Your task to perform on an android device: turn on improve location accuracy Image 0: 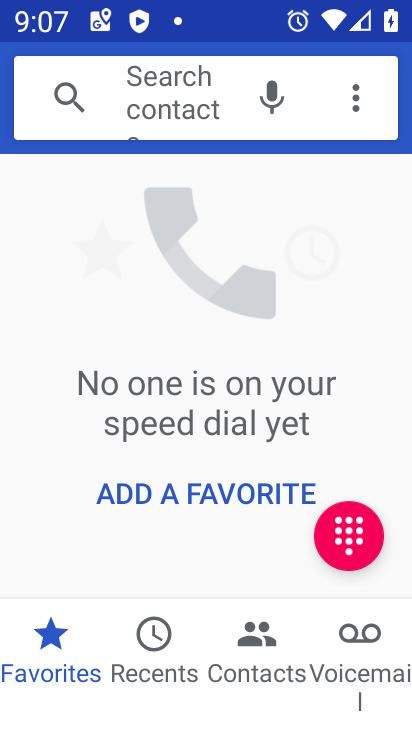
Step 0: press home button
Your task to perform on an android device: turn on improve location accuracy Image 1: 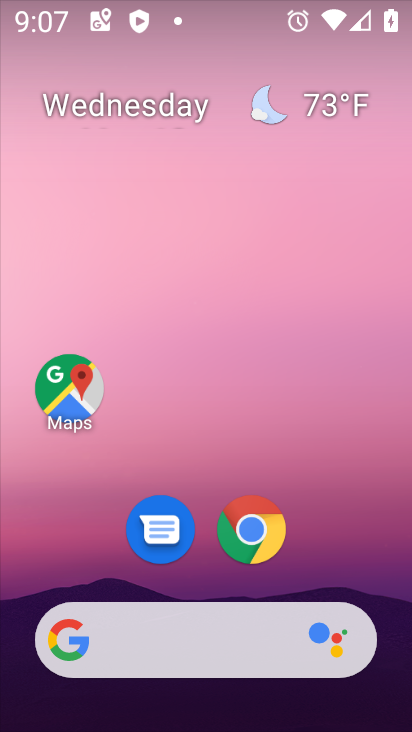
Step 1: drag from (375, 544) to (365, 165)
Your task to perform on an android device: turn on improve location accuracy Image 2: 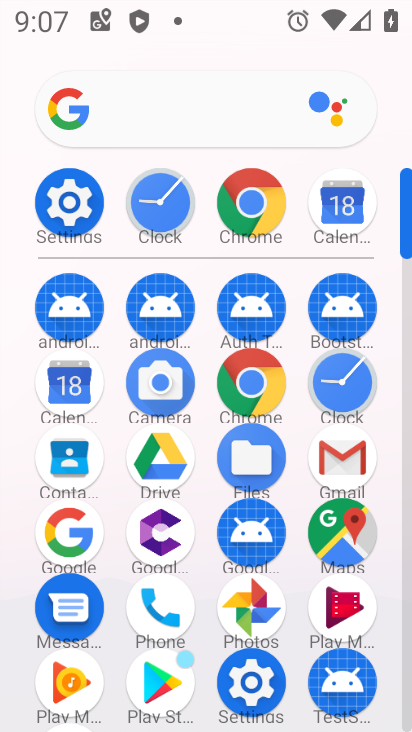
Step 2: click (44, 205)
Your task to perform on an android device: turn on improve location accuracy Image 3: 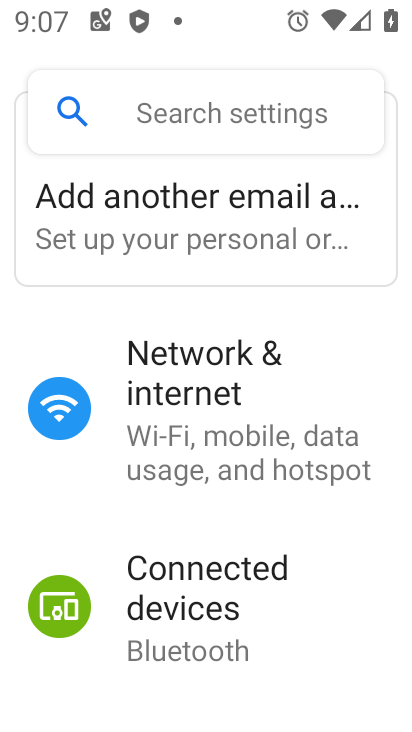
Step 3: drag from (314, 638) to (327, 430)
Your task to perform on an android device: turn on improve location accuracy Image 4: 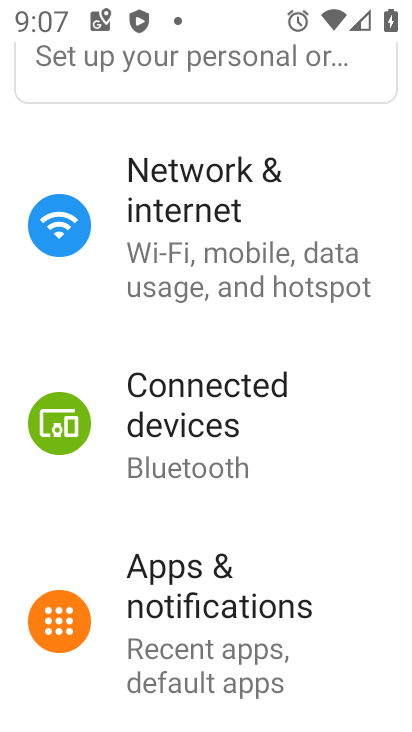
Step 4: drag from (325, 646) to (350, 483)
Your task to perform on an android device: turn on improve location accuracy Image 5: 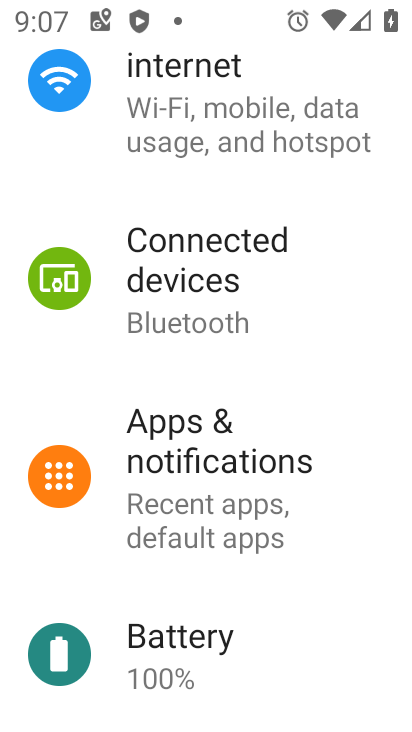
Step 5: drag from (335, 670) to (344, 478)
Your task to perform on an android device: turn on improve location accuracy Image 6: 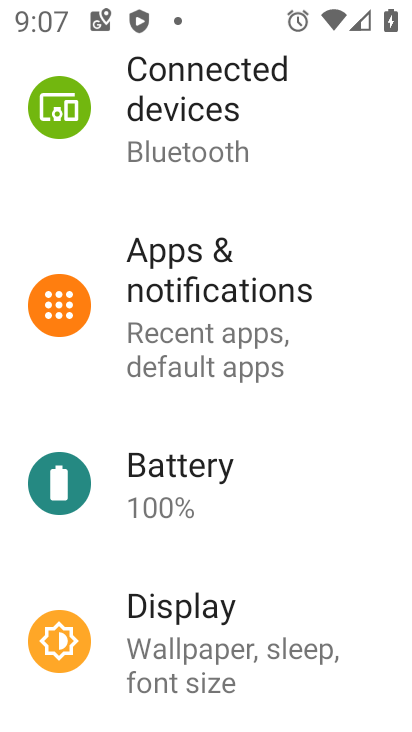
Step 6: drag from (357, 650) to (353, 485)
Your task to perform on an android device: turn on improve location accuracy Image 7: 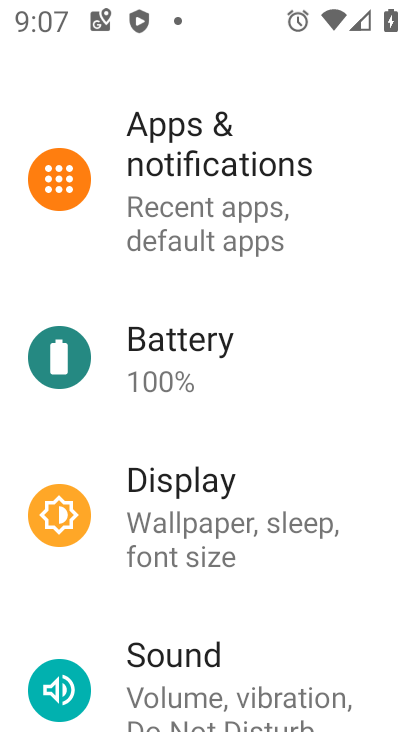
Step 7: drag from (340, 635) to (350, 529)
Your task to perform on an android device: turn on improve location accuracy Image 8: 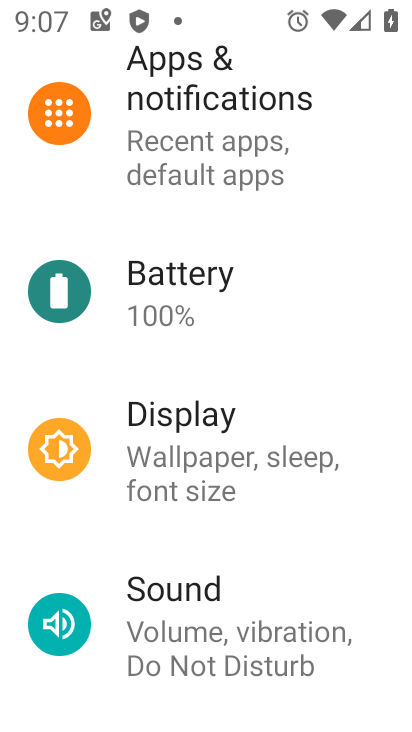
Step 8: drag from (368, 676) to (367, 623)
Your task to perform on an android device: turn on improve location accuracy Image 9: 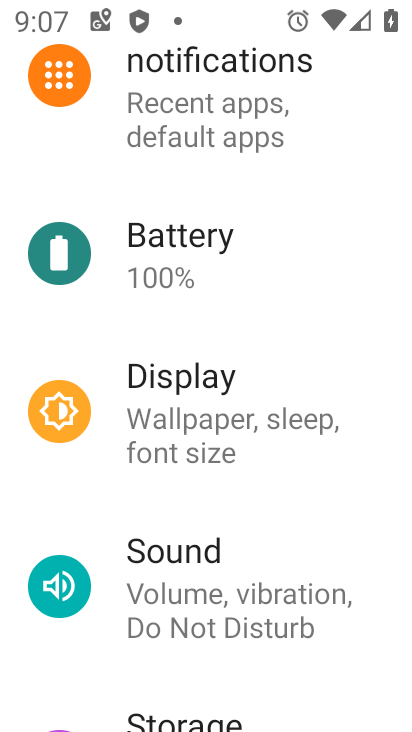
Step 9: drag from (367, 676) to (366, 550)
Your task to perform on an android device: turn on improve location accuracy Image 10: 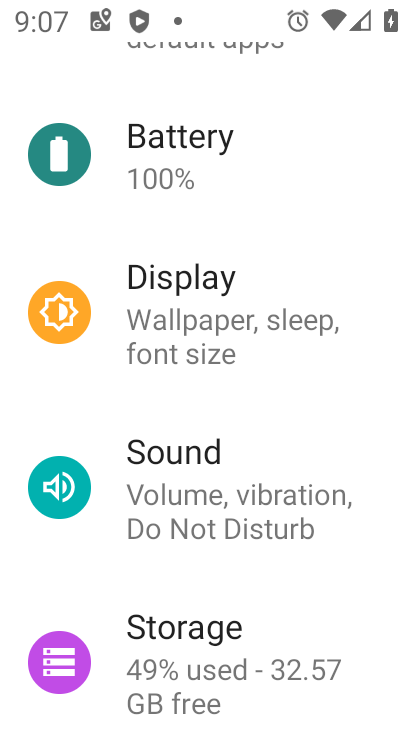
Step 10: drag from (366, 690) to (363, 580)
Your task to perform on an android device: turn on improve location accuracy Image 11: 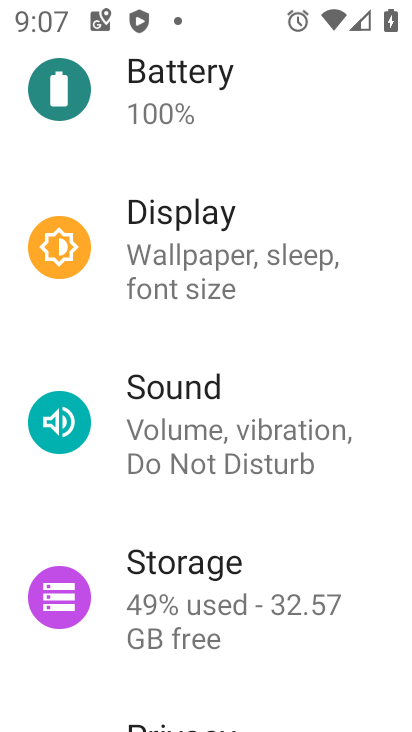
Step 11: drag from (363, 657) to (355, 542)
Your task to perform on an android device: turn on improve location accuracy Image 12: 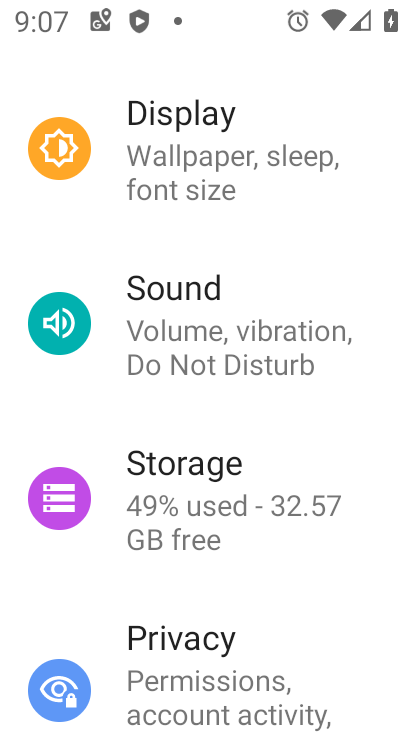
Step 12: drag from (355, 673) to (362, 568)
Your task to perform on an android device: turn on improve location accuracy Image 13: 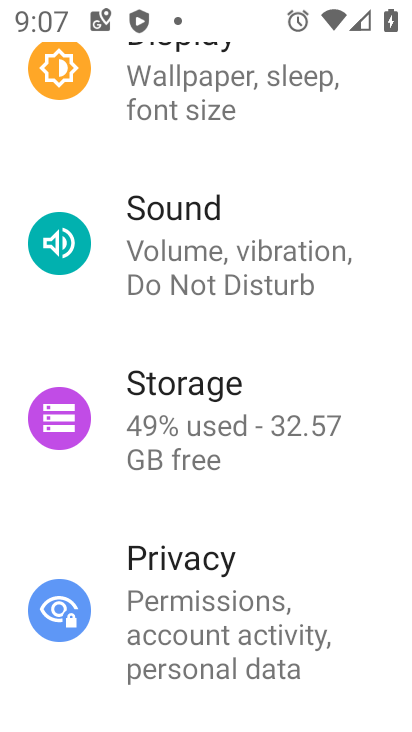
Step 13: drag from (351, 681) to (352, 591)
Your task to perform on an android device: turn on improve location accuracy Image 14: 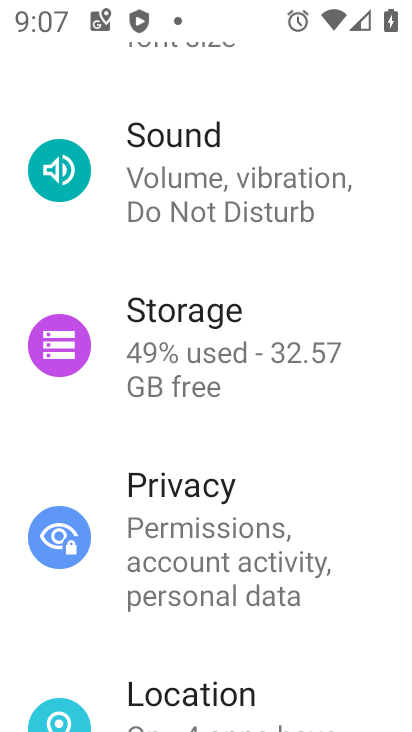
Step 14: drag from (348, 693) to (347, 616)
Your task to perform on an android device: turn on improve location accuracy Image 15: 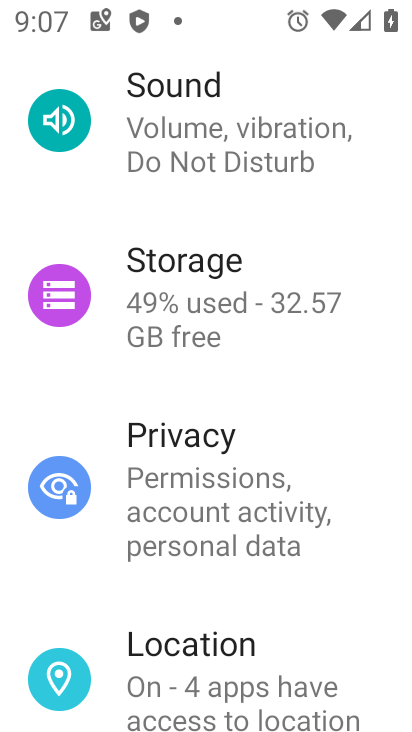
Step 15: drag from (348, 690) to (348, 595)
Your task to perform on an android device: turn on improve location accuracy Image 16: 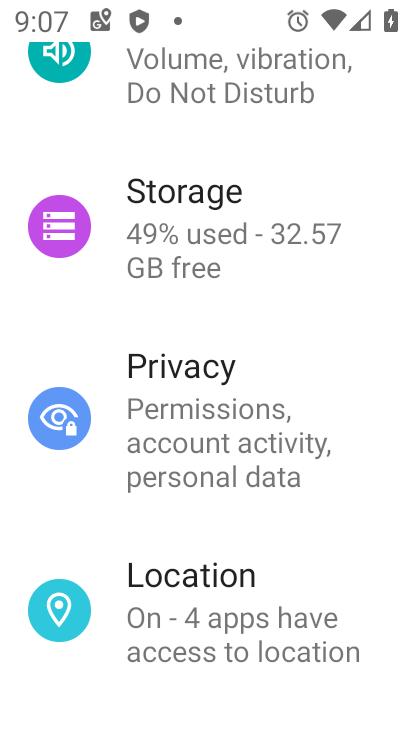
Step 16: click (252, 624)
Your task to perform on an android device: turn on improve location accuracy Image 17: 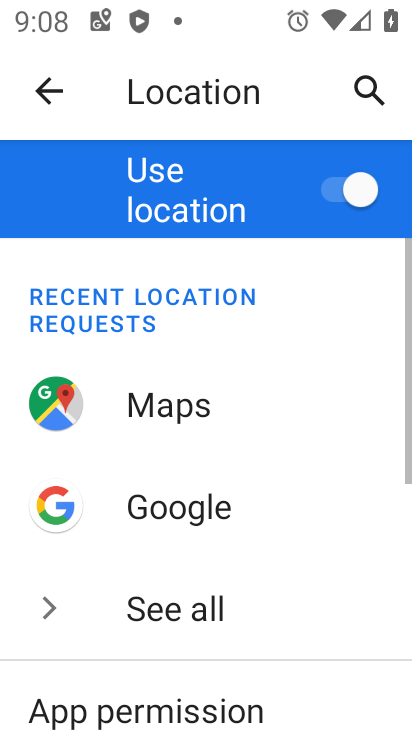
Step 17: drag from (339, 658) to (337, 572)
Your task to perform on an android device: turn on improve location accuracy Image 18: 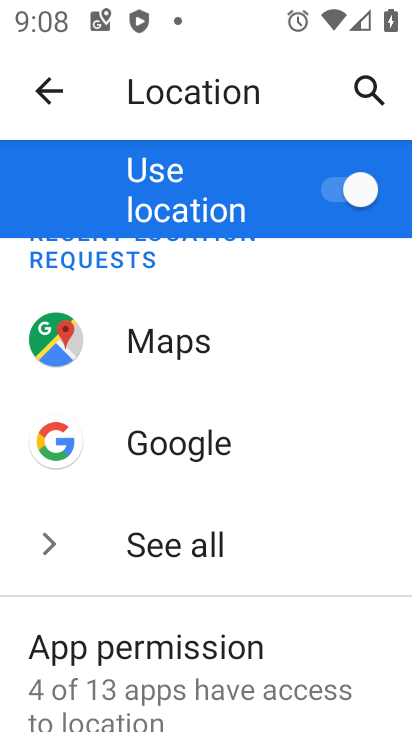
Step 18: drag from (346, 704) to (328, 568)
Your task to perform on an android device: turn on improve location accuracy Image 19: 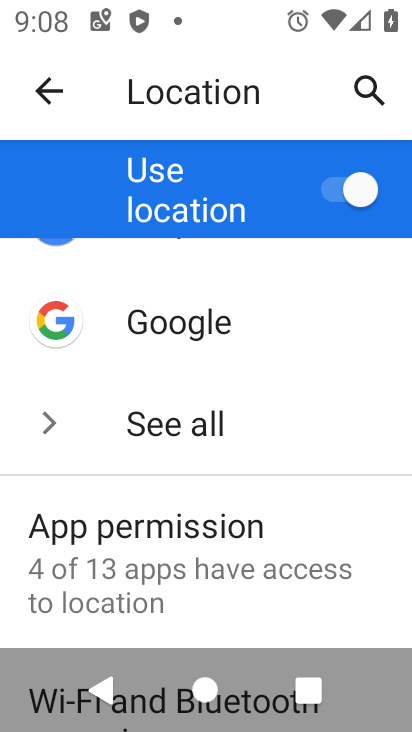
Step 19: drag from (355, 624) to (356, 547)
Your task to perform on an android device: turn on improve location accuracy Image 20: 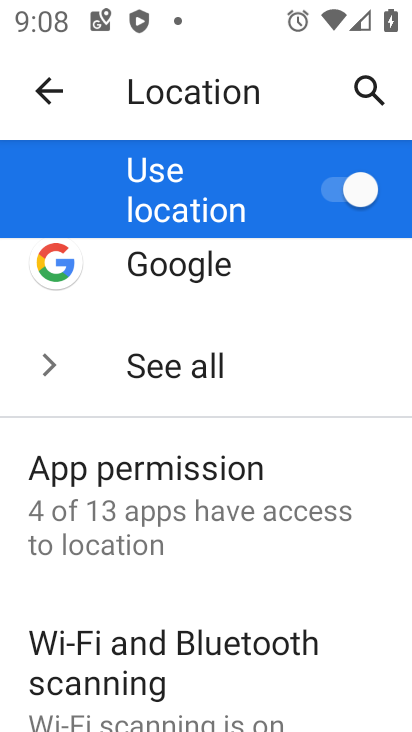
Step 20: drag from (347, 626) to (330, 500)
Your task to perform on an android device: turn on improve location accuracy Image 21: 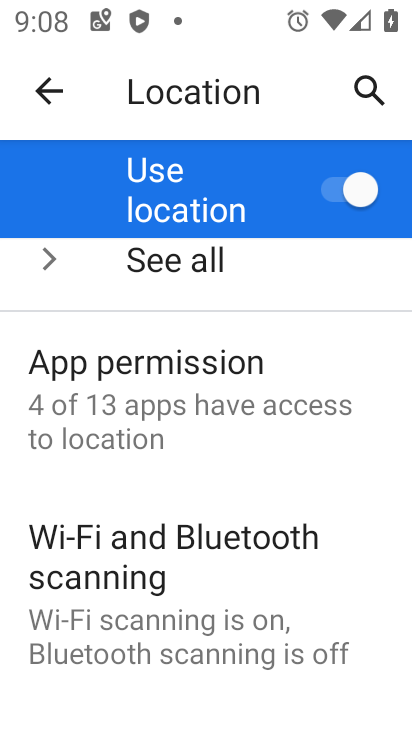
Step 21: drag from (323, 678) to (318, 534)
Your task to perform on an android device: turn on improve location accuracy Image 22: 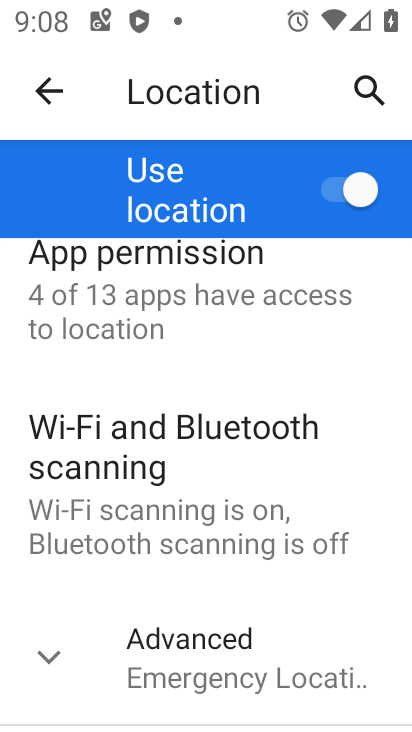
Step 22: drag from (304, 632) to (307, 517)
Your task to perform on an android device: turn on improve location accuracy Image 23: 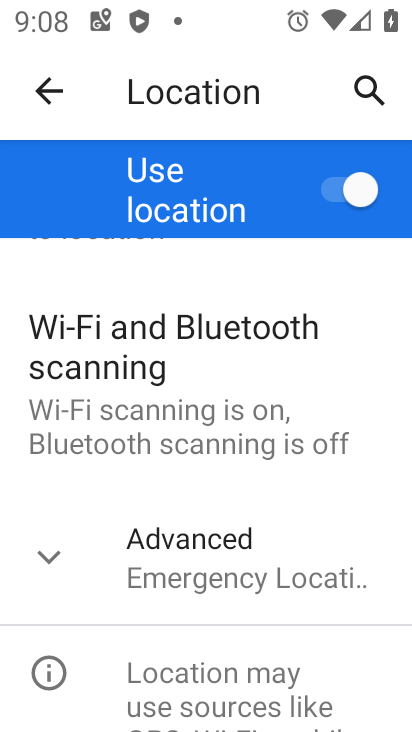
Step 23: click (218, 594)
Your task to perform on an android device: turn on improve location accuracy Image 24: 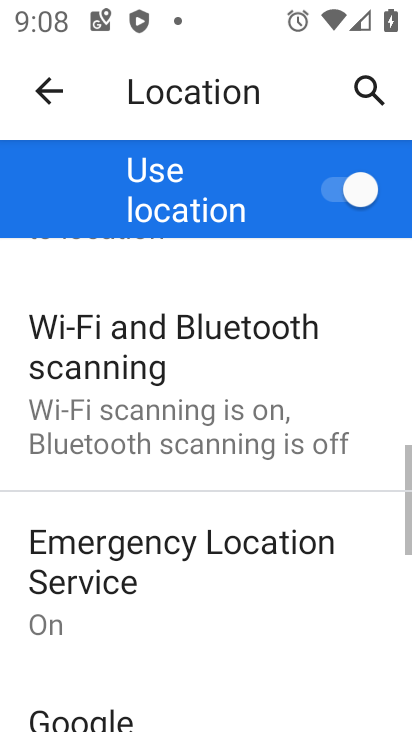
Step 24: drag from (320, 649) to (332, 511)
Your task to perform on an android device: turn on improve location accuracy Image 25: 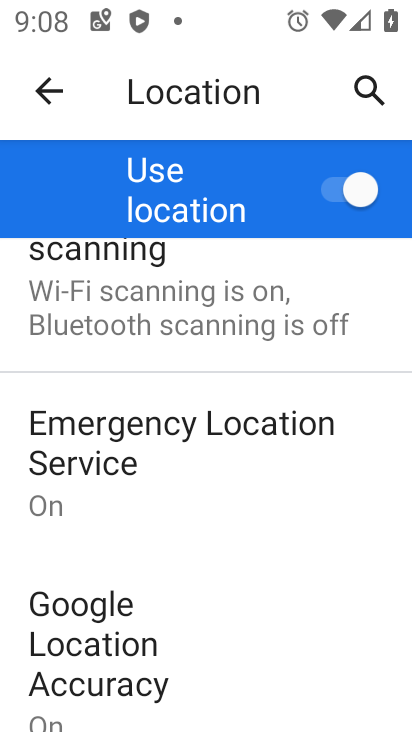
Step 25: drag from (312, 607) to (313, 500)
Your task to perform on an android device: turn on improve location accuracy Image 26: 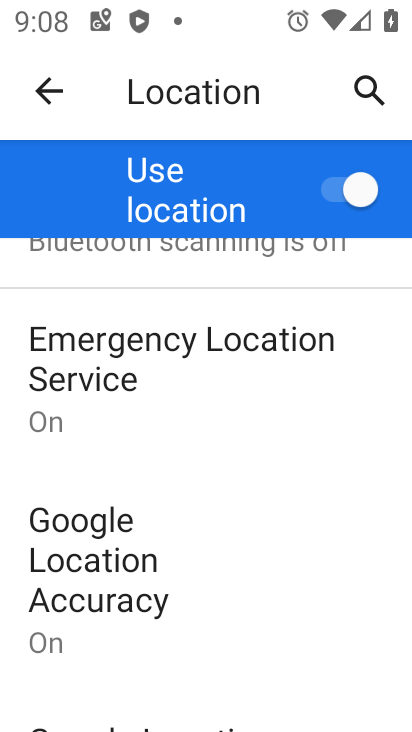
Step 26: drag from (306, 643) to (315, 522)
Your task to perform on an android device: turn on improve location accuracy Image 27: 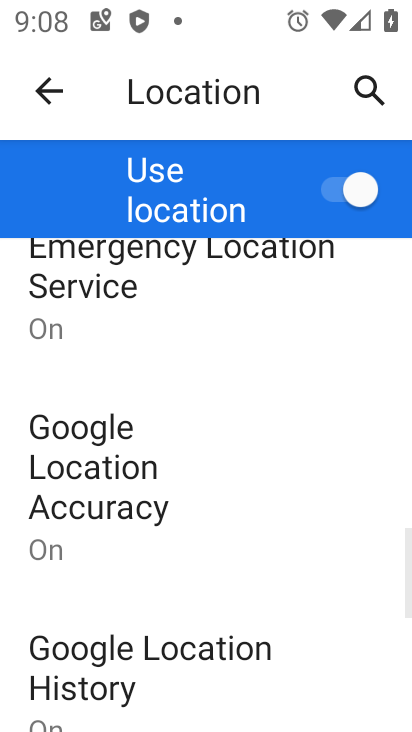
Step 27: drag from (323, 678) to (327, 560)
Your task to perform on an android device: turn on improve location accuracy Image 28: 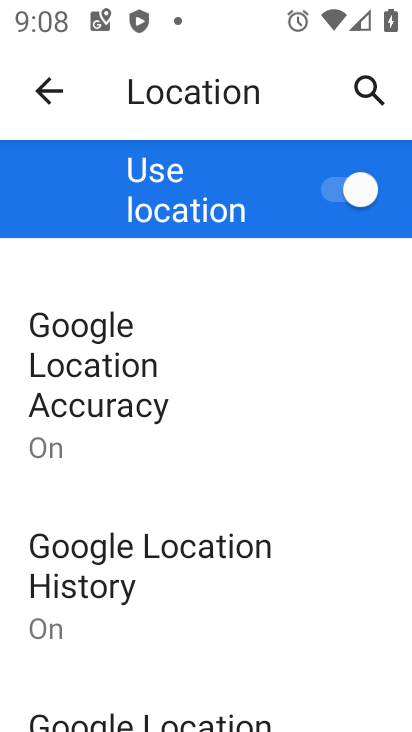
Step 28: drag from (313, 676) to (311, 564)
Your task to perform on an android device: turn on improve location accuracy Image 29: 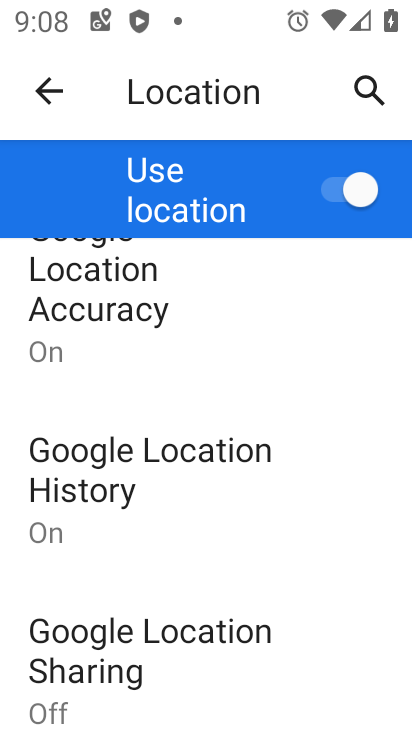
Step 29: drag from (312, 380) to (322, 533)
Your task to perform on an android device: turn on improve location accuracy Image 30: 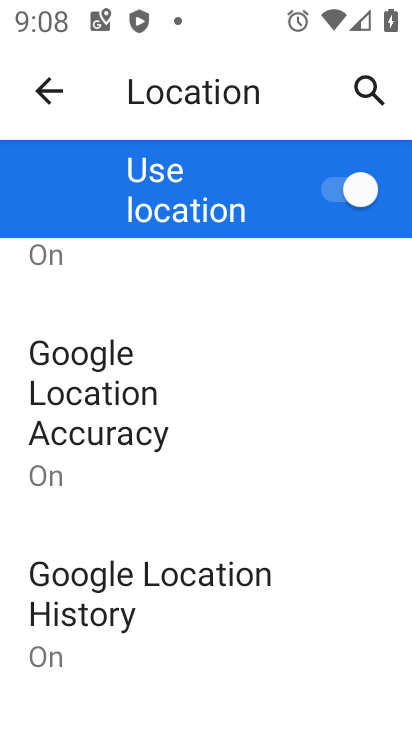
Step 30: click (122, 425)
Your task to perform on an android device: turn on improve location accuracy Image 31: 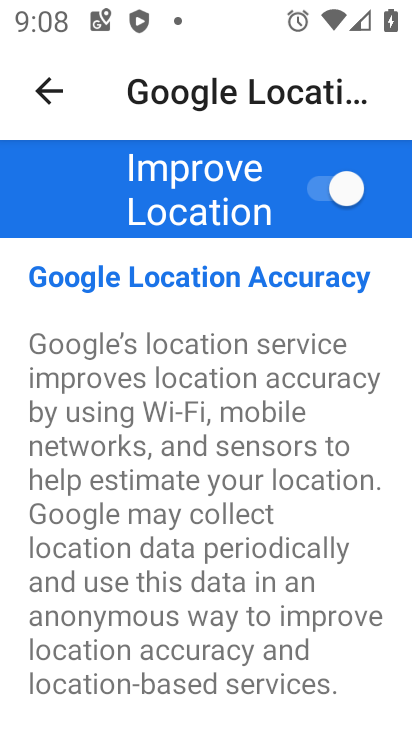
Step 31: task complete